Your task to perform on an android device: make emails show in primary in the gmail app Image 0: 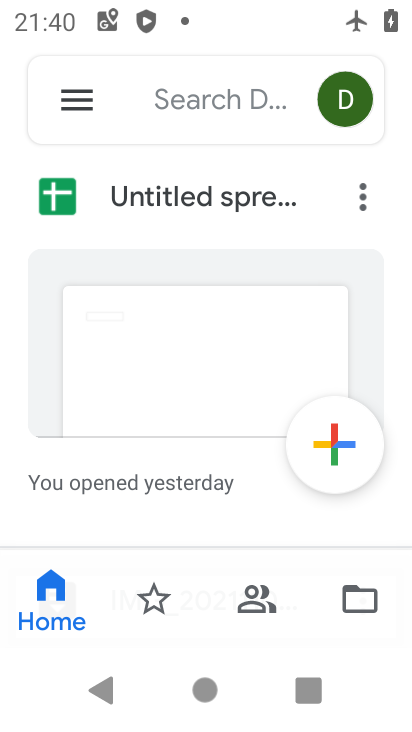
Step 0: press home button
Your task to perform on an android device: make emails show in primary in the gmail app Image 1: 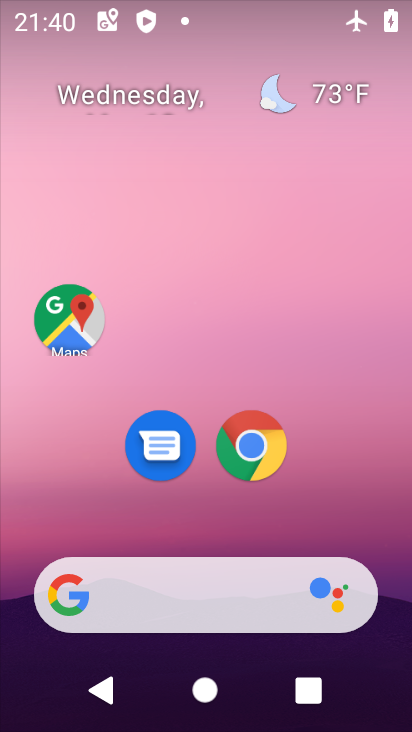
Step 1: drag from (327, 495) to (340, 250)
Your task to perform on an android device: make emails show in primary in the gmail app Image 2: 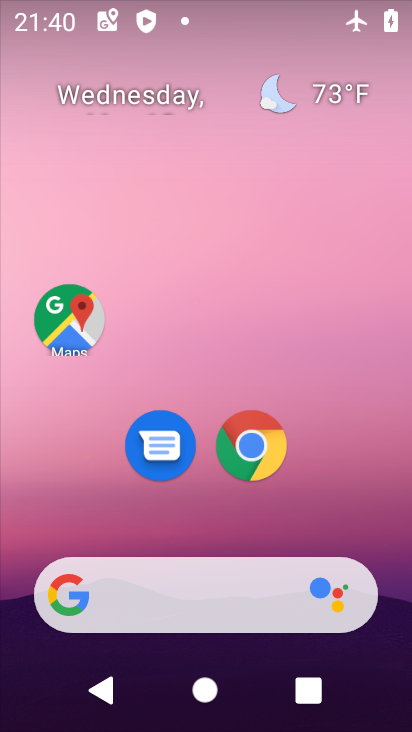
Step 2: drag from (306, 503) to (336, 197)
Your task to perform on an android device: make emails show in primary in the gmail app Image 3: 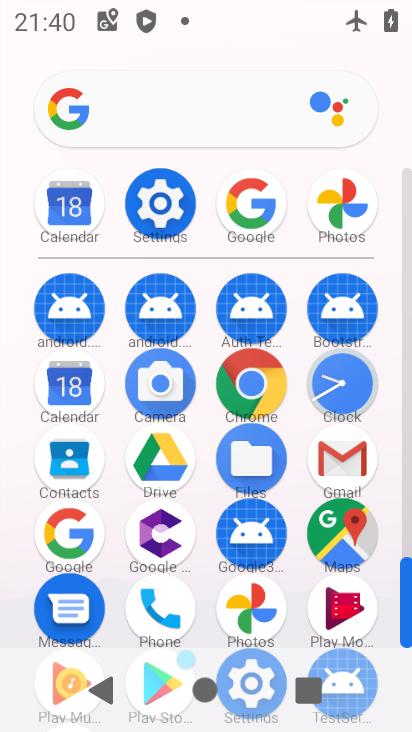
Step 3: click (339, 454)
Your task to perform on an android device: make emails show in primary in the gmail app Image 4: 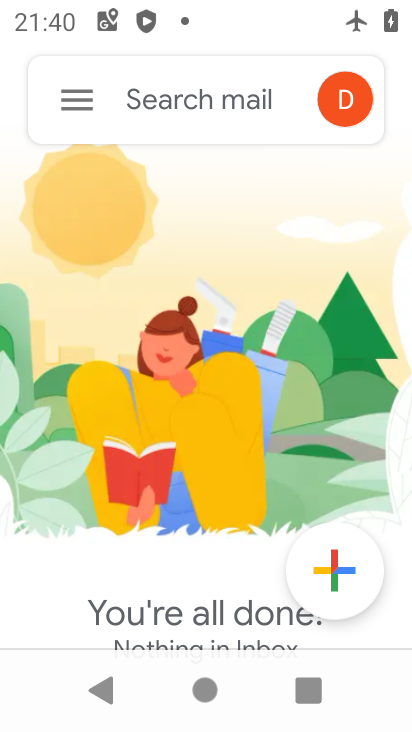
Step 4: click (76, 96)
Your task to perform on an android device: make emails show in primary in the gmail app Image 5: 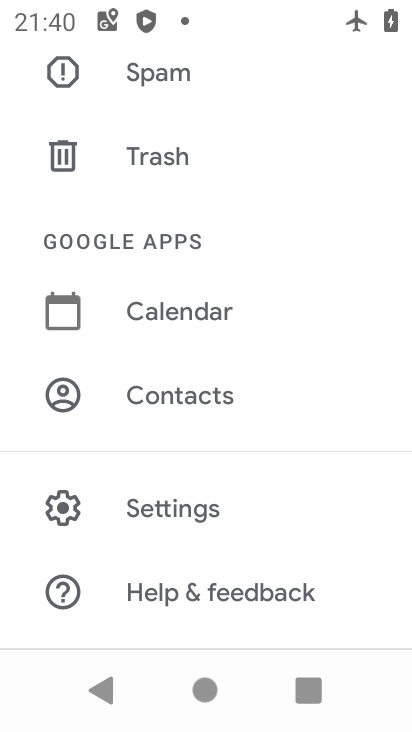
Step 5: click (214, 492)
Your task to perform on an android device: make emails show in primary in the gmail app Image 6: 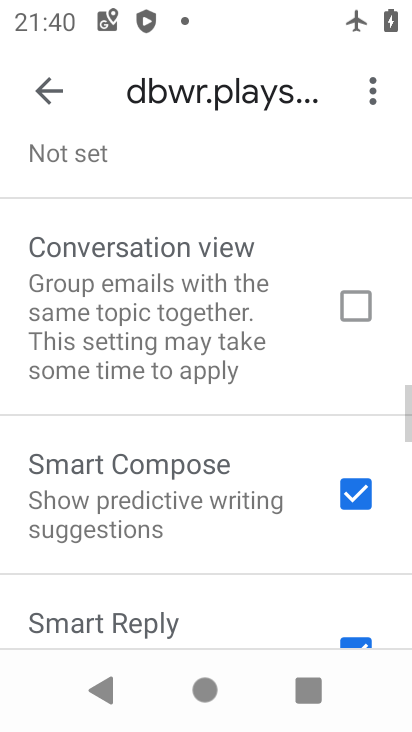
Step 6: task complete